Your task to perform on an android device: What's the weather? Image 0: 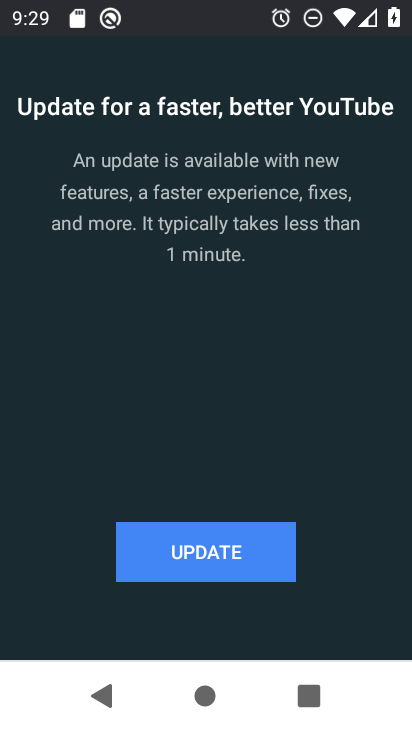
Step 0: press home button
Your task to perform on an android device: What's the weather? Image 1: 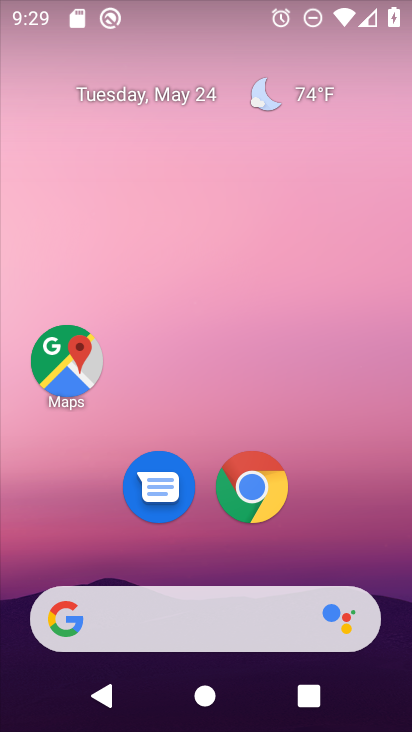
Step 1: click (116, 621)
Your task to perform on an android device: What's the weather? Image 2: 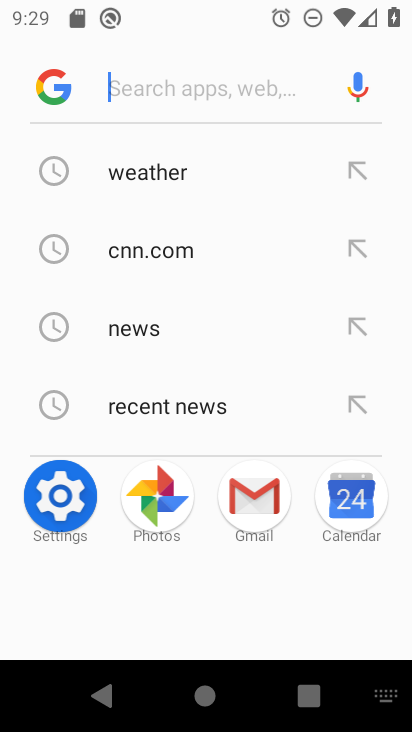
Step 2: click (128, 182)
Your task to perform on an android device: What's the weather? Image 3: 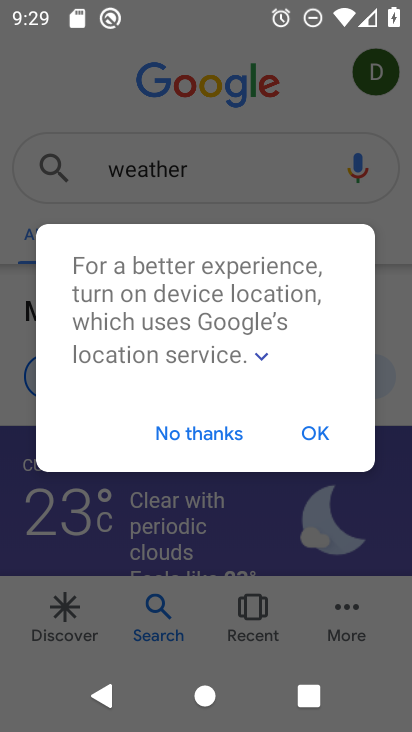
Step 3: click (175, 442)
Your task to perform on an android device: What's the weather? Image 4: 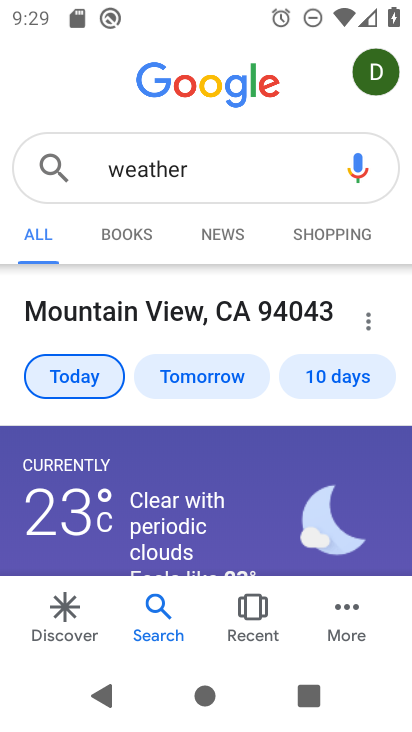
Step 4: task complete